Your task to perform on an android device: change keyboard looks Image 0: 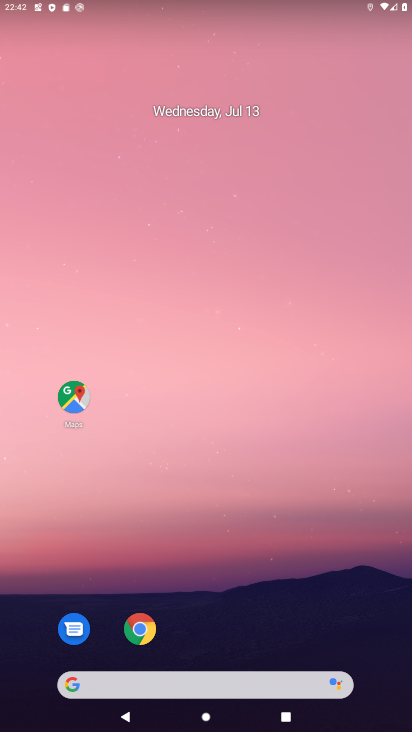
Step 0: drag from (213, 652) to (209, 66)
Your task to perform on an android device: change keyboard looks Image 1: 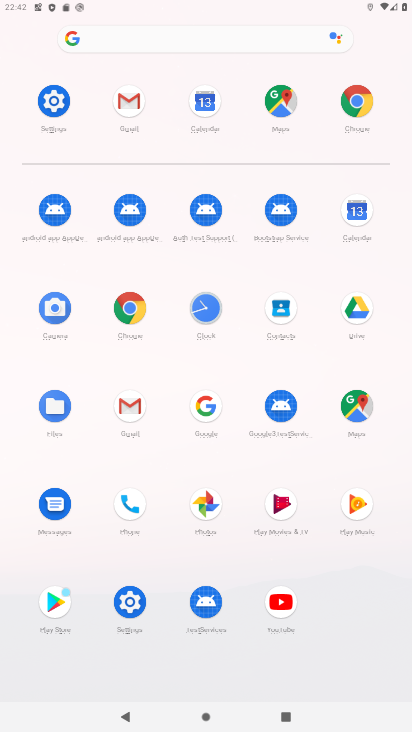
Step 1: click (129, 598)
Your task to perform on an android device: change keyboard looks Image 2: 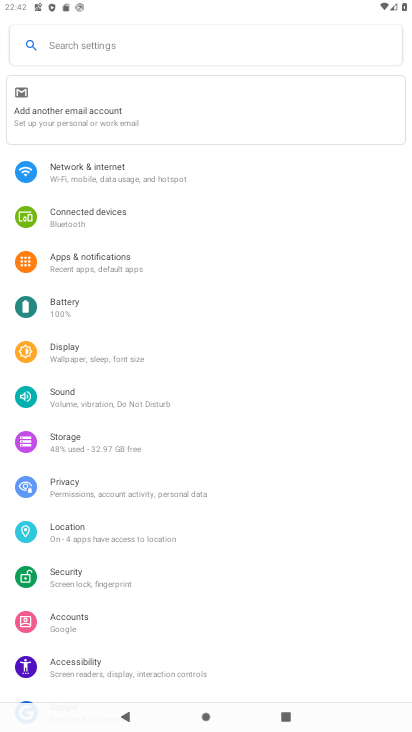
Step 2: drag from (115, 653) to (140, 153)
Your task to perform on an android device: change keyboard looks Image 3: 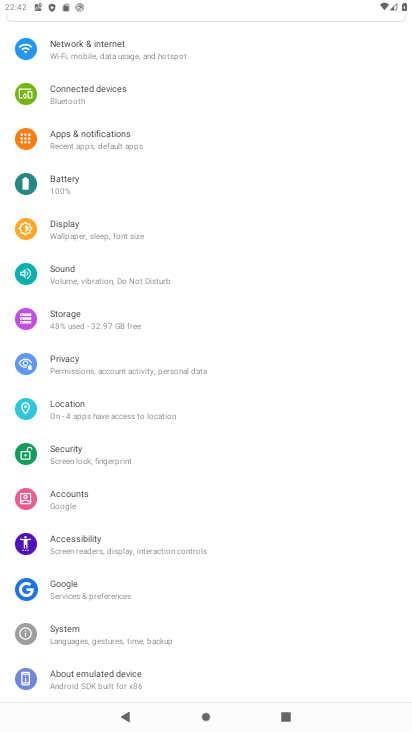
Step 3: click (87, 631)
Your task to perform on an android device: change keyboard looks Image 4: 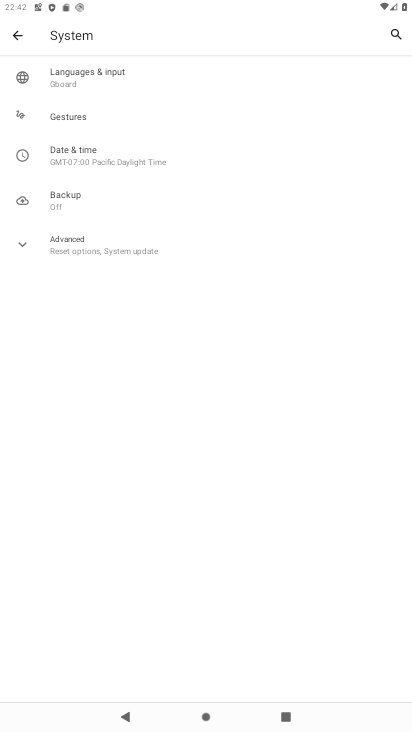
Step 4: click (48, 81)
Your task to perform on an android device: change keyboard looks Image 5: 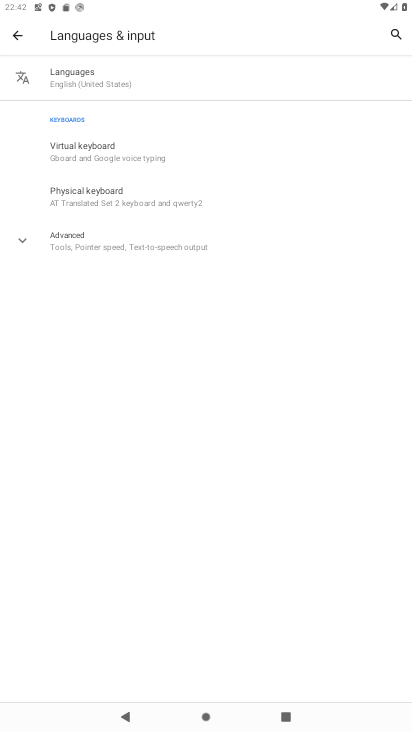
Step 5: click (75, 145)
Your task to perform on an android device: change keyboard looks Image 6: 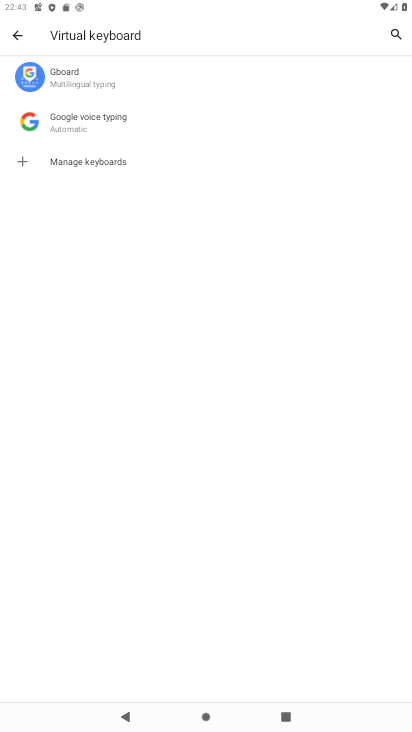
Step 6: click (85, 75)
Your task to perform on an android device: change keyboard looks Image 7: 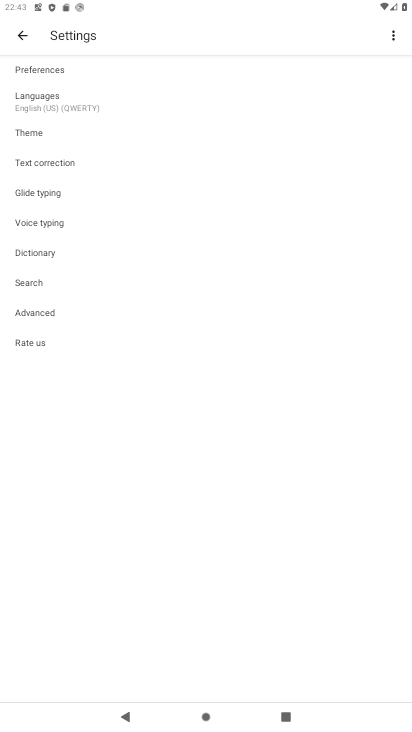
Step 7: click (48, 132)
Your task to perform on an android device: change keyboard looks Image 8: 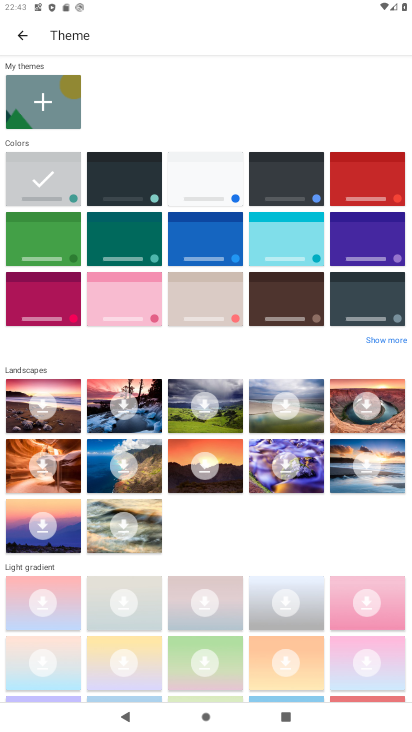
Step 8: click (285, 179)
Your task to perform on an android device: change keyboard looks Image 9: 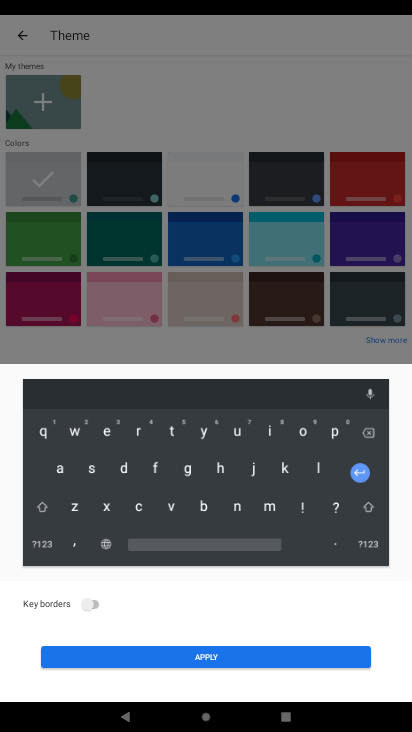
Step 9: click (210, 652)
Your task to perform on an android device: change keyboard looks Image 10: 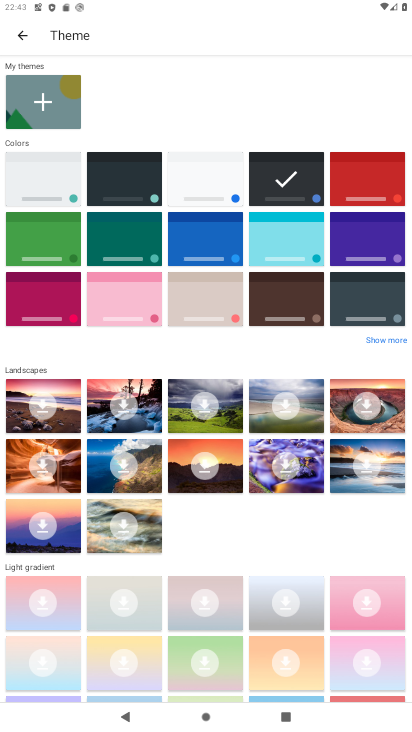
Step 10: task complete